Your task to perform on an android device: Open Youtube and go to "Your channel" Image 0: 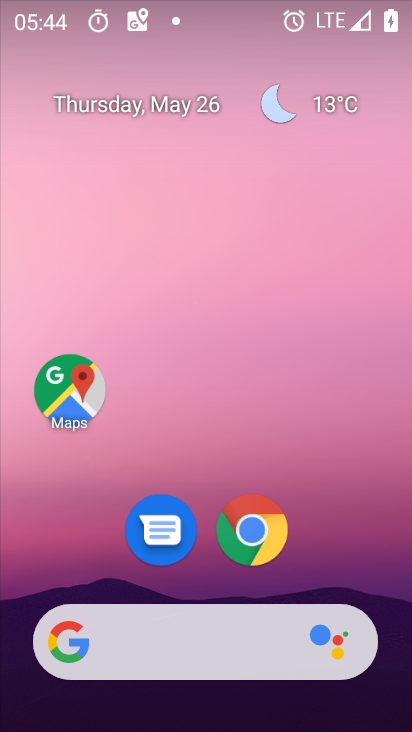
Step 0: drag from (247, 622) to (360, 72)
Your task to perform on an android device: Open Youtube and go to "Your channel" Image 1: 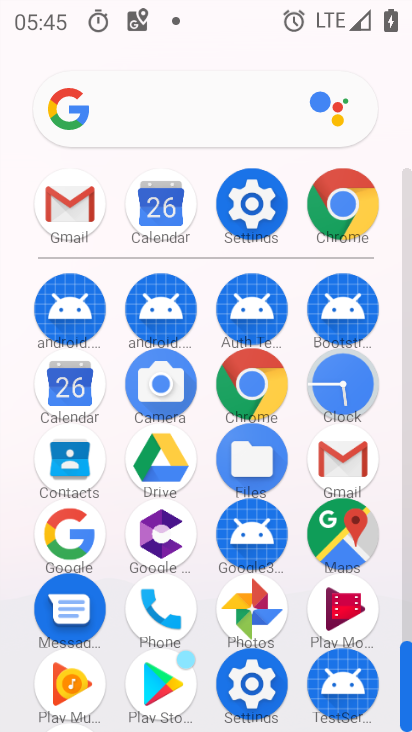
Step 1: drag from (307, 637) to (303, 362)
Your task to perform on an android device: Open Youtube and go to "Your channel" Image 2: 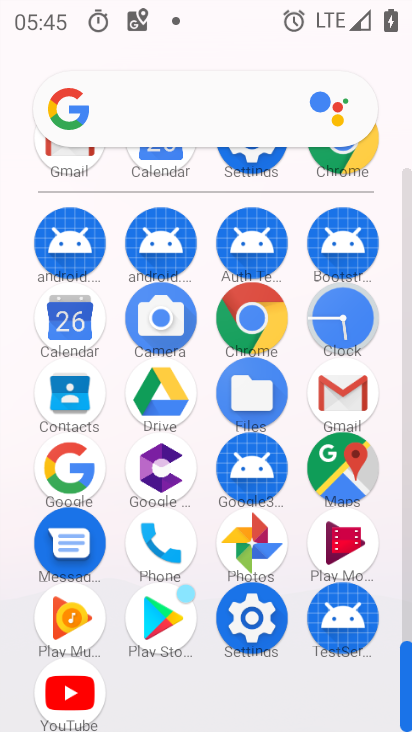
Step 2: click (81, 685)
Your task to perform on an android device: Open Youtube and go to "Your channel" Image 3: 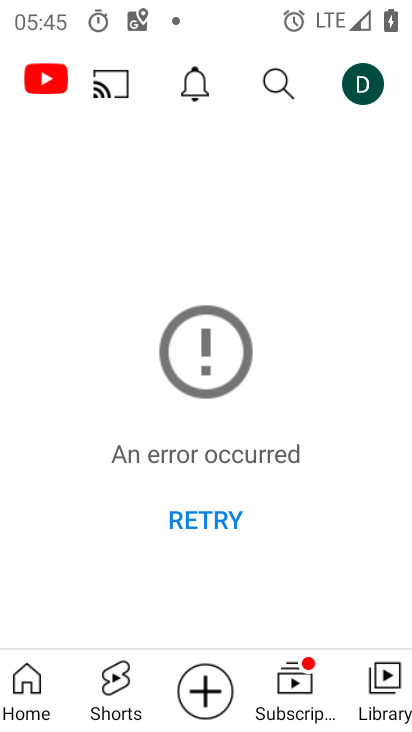
Step 3: drag from (363, 93) to (243, 307)
Your task to perform on an android device: Open Youtube and go to "Your channel" Image 4: 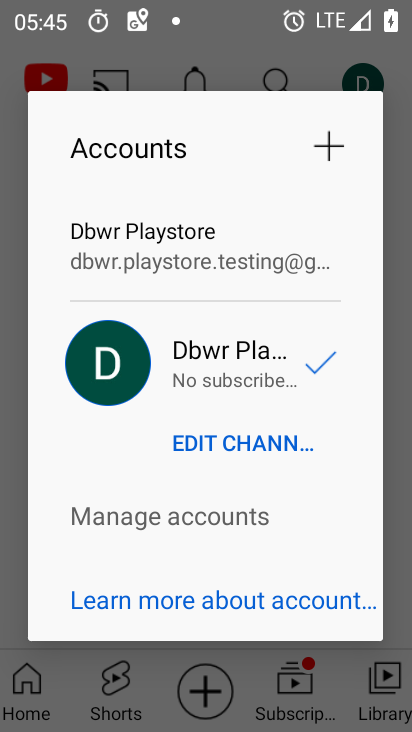
Step 4: click (405, 141)
Your task to perform on an android device: Open Youtube and go to "Your channel" Image 5: 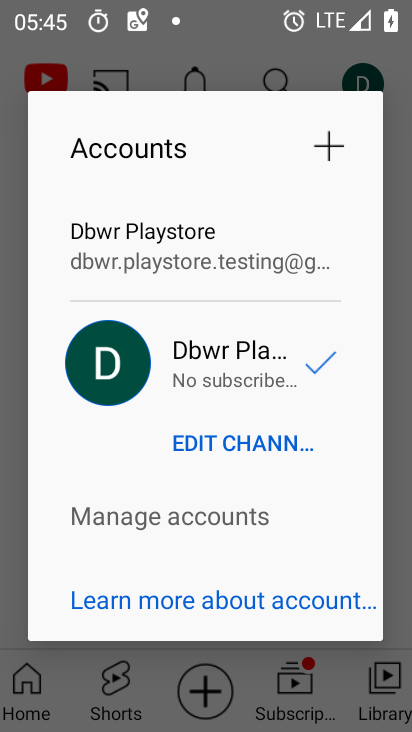
Step 5: click (334, 62)
Your task to perform on an android device: Open Youtube and go to "Your channel" Image 6: 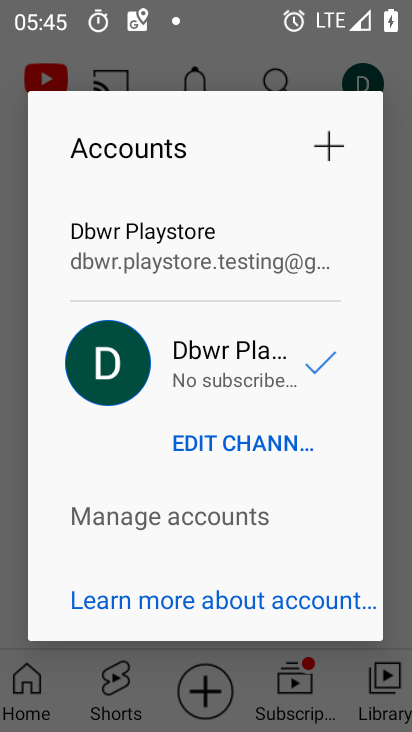
Step 6: press back button
Your task to perform on an android device: Open Youtube and go to "Your channel" Image 7: 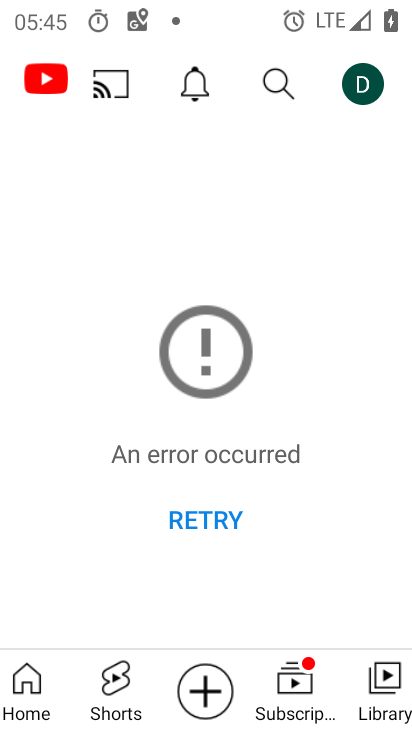
Step 7: click (359, 81)
Your task to perform on an android device: Open Youtube and go to "Your channel" Image 8: 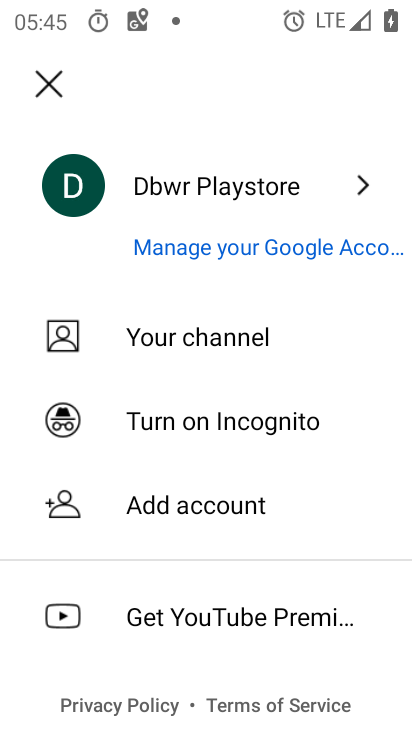
Step 8: click (230, 344)
Your task to perform on an android device: Open Youtube and go to "Your channel" Image 9: 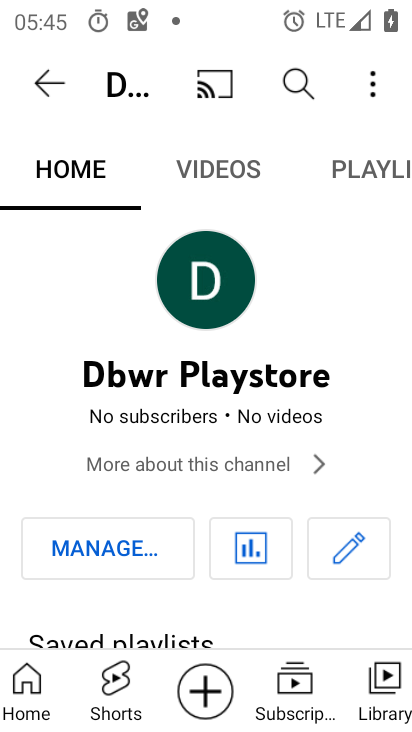
Step 9: task complete